Your task to perform on an android device: delete browsing data in the chrome app Image 0: 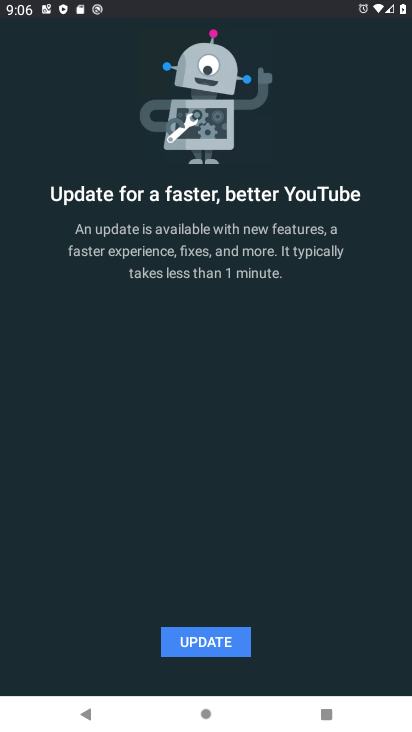
Step 0: press home button
Your task to perform on an android device: delete browsing data in the chrome app Image 1: 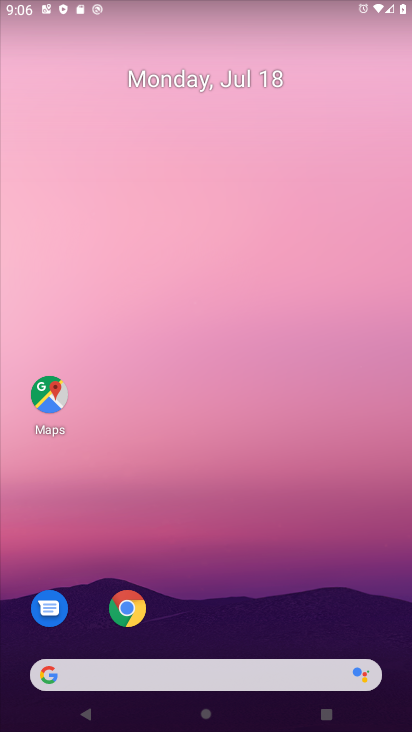
Step 1: drag from (253, 723) to (263, 151)
Your task to perform on an android device: delete browsing data in the chrome app Image 2: 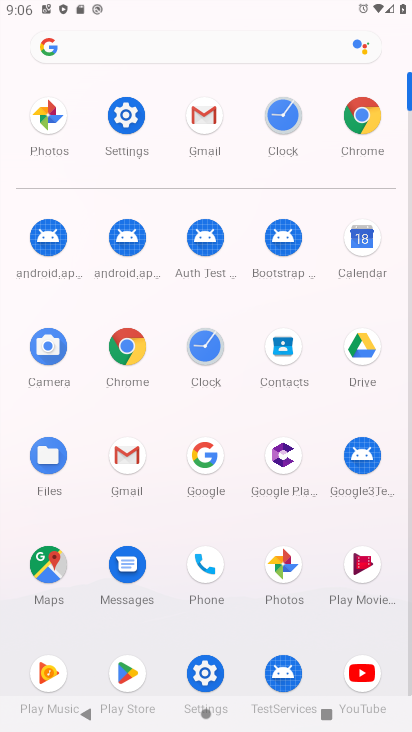
Step 2: click (132, 348)
Your task to perform on an android device: delete browsing data in the chrome app Image 3: 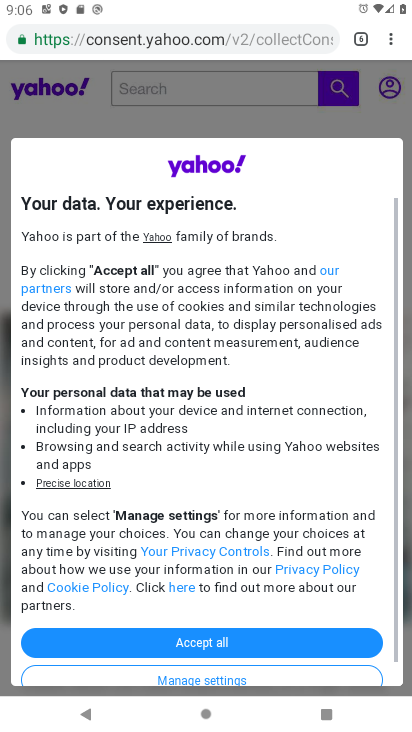
Step 3: click (390, 41)
Your task to perform on an android device: delete browsing data in the chrome app Image 4: 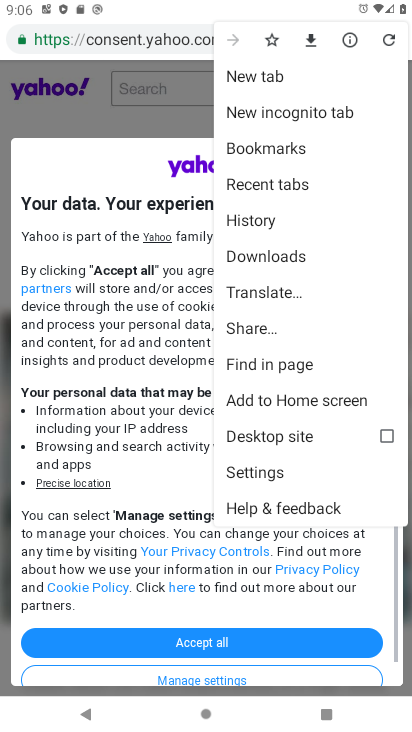
Step 4: click (263, 219)
Your task to perform on an android device: delete browsing data in the chrome app Image 5: 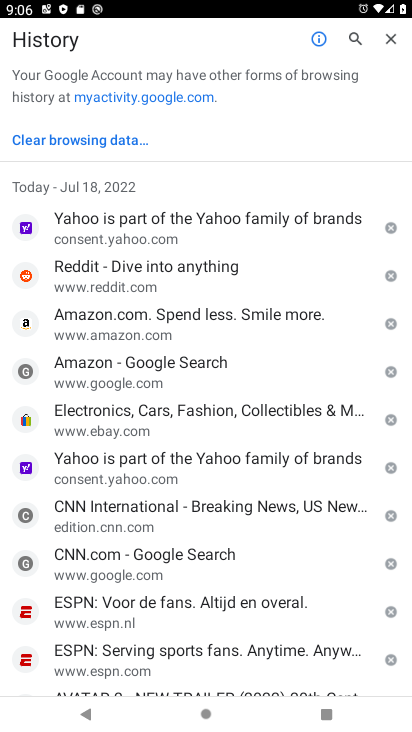
Step 5: click (69, 135)
Your task to perform on an android device: delete browsing data in the chrome app Image 6: 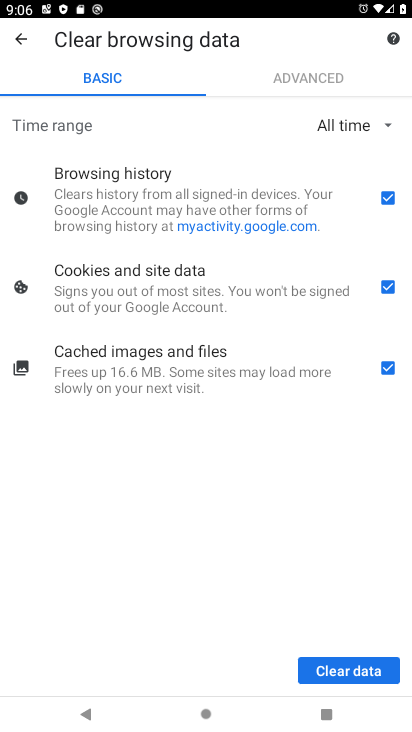
Step 6: click (386, 366)
Your task to perform on an android device: delete browsing data in the chrome app Image 7: 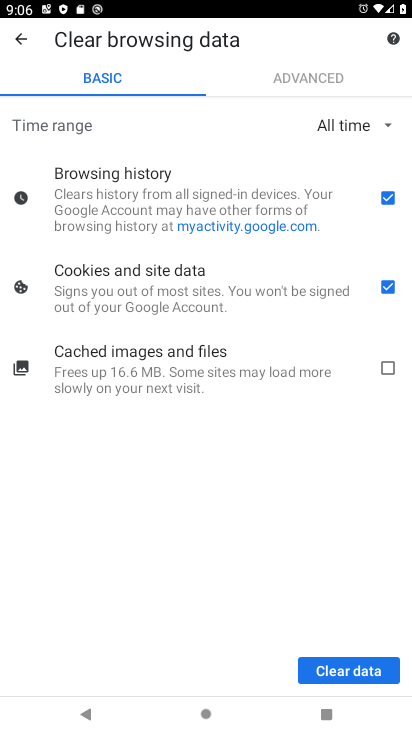
Step 7: click (387, 286)
Your task to perform on an android device: delete browsing data in the chrome app Image 8: 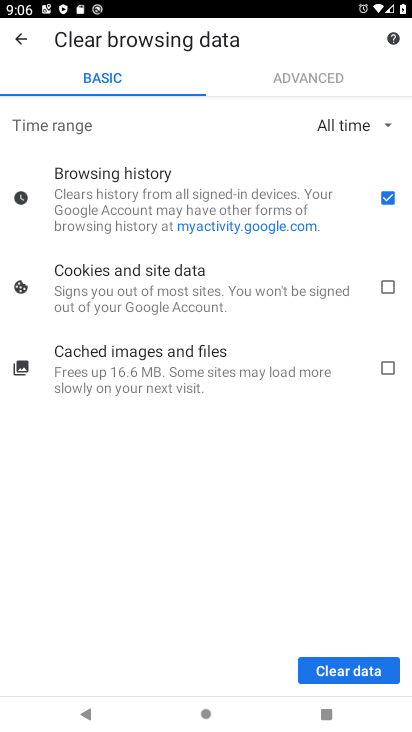
Step 8: click (328, 666)
Your task to perform on an android device: delete browsing data in the chrome app Image 9: 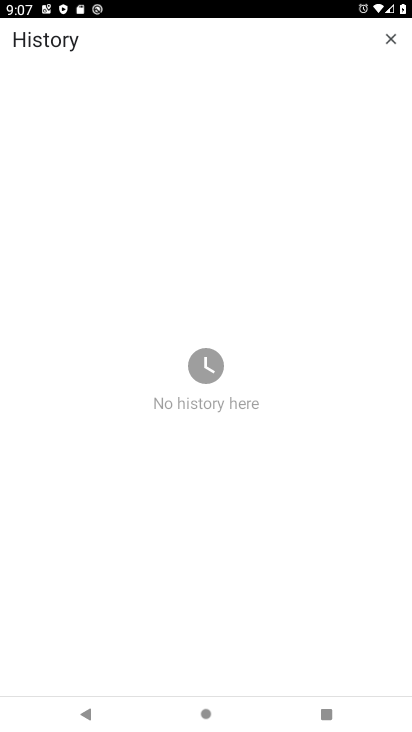
Step 9: task complete